Your task to perform on an android device: open sync settings in chrome Image 0: 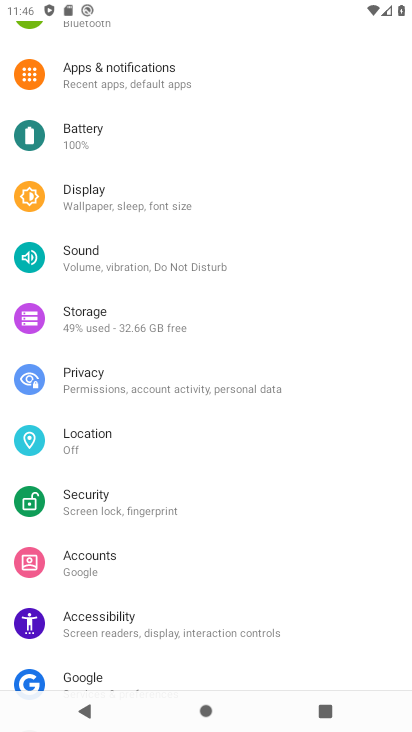
Step 0: press back button
Your task to perform on an android device: open sync settings in chrome Image 1: 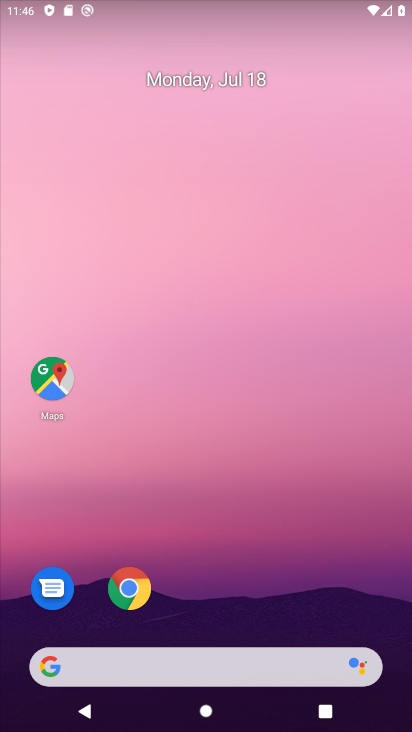
Step 1: drag from (223, 621) to (215, 141)
Your task to perform on an android device: open sync settings in chrome Image 2: 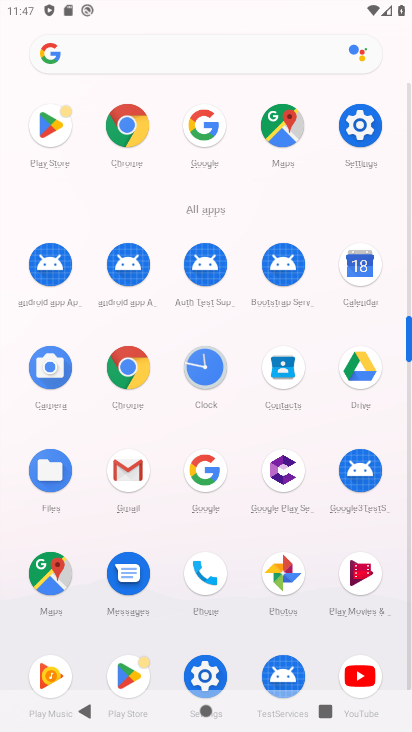
Step 2: click (357, 125)
Your task to perform on an android device: open sync settings in chrome Image 3: 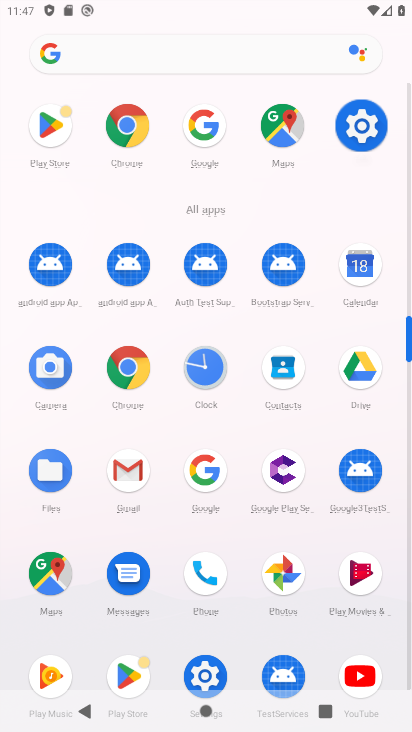
Step 3: click (358, 134)
Your task to perform on an android device: open sync settings in chrome Image 4: 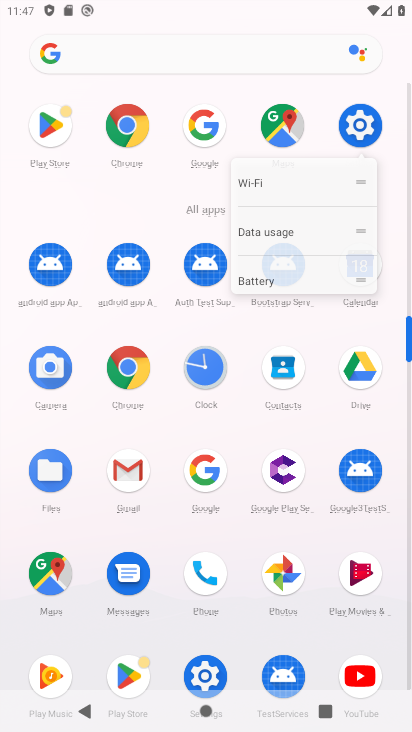
Step 4: click (358, 134)
Your task to perform on an android device: open sync settings in chrome Image 5: 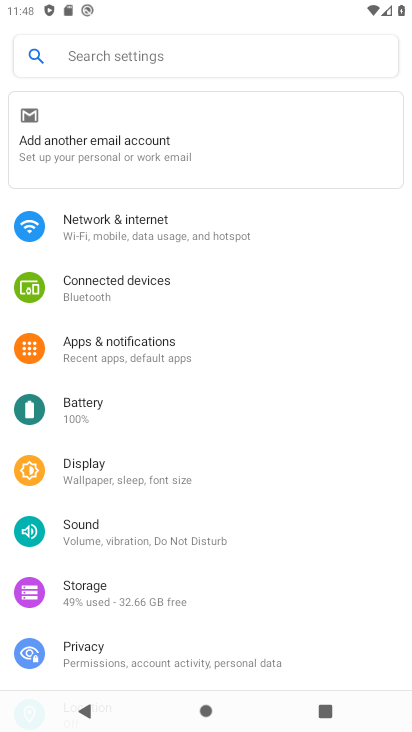
Step 5: press back button
Your task to perform on an android device: open sync settings in chrome Image 6: 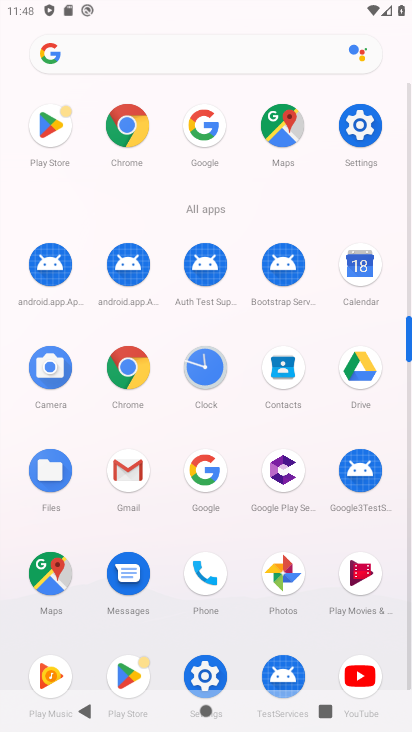
Step 6: press home button
Your task to perform on an android device: open sync settings in chrome Image 7: 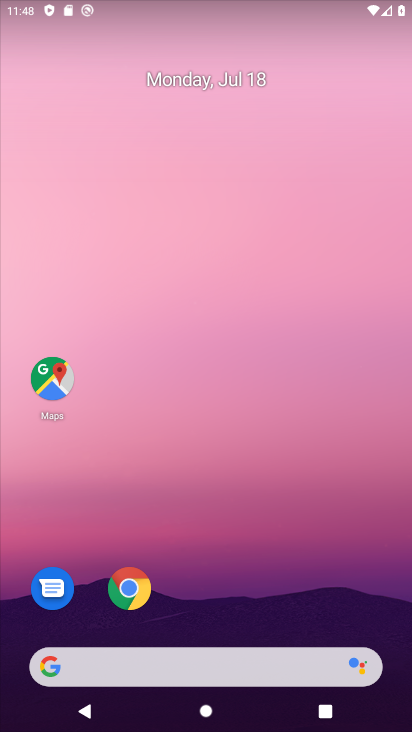
Step 7: drag from (275, 582) to (224, 4)
Your task to perform on an android device: open sync settings in chrome Image 8: 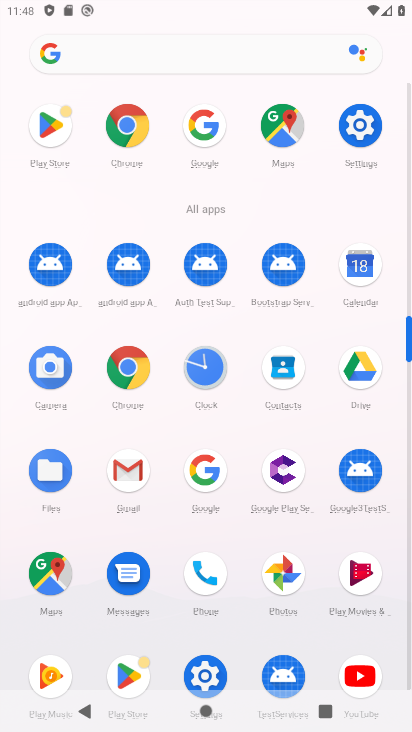
Step 8: click (125, 367)
Your task to perform on an android device: open sync settings in chrome Image 9: 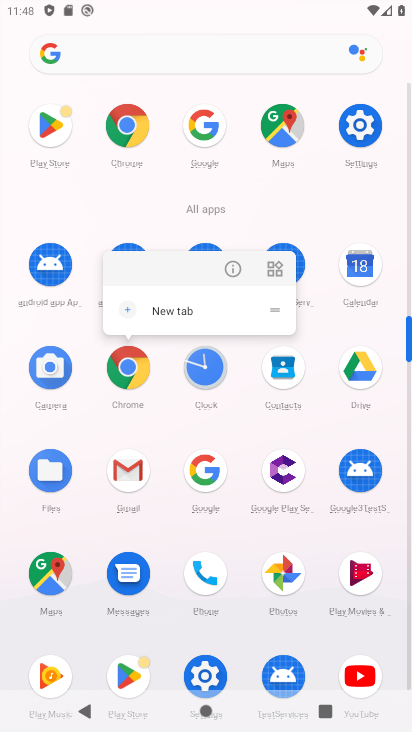
Step 9: click (126, 370)
Your task to perform on an android device: open sync settings in chrome Image 10: 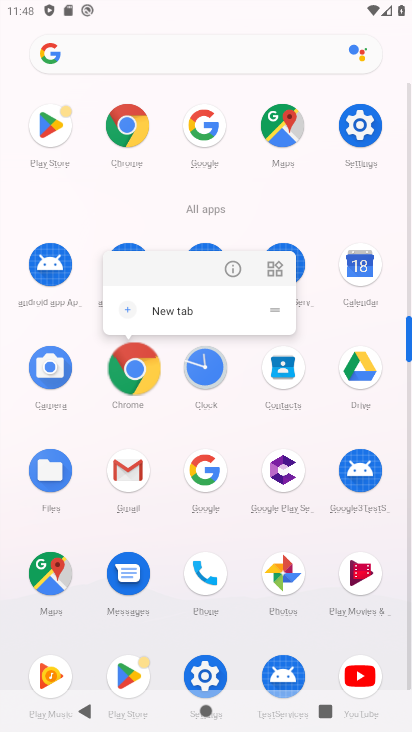
Step 10: click (133, 364)
Your task to perform on an android device: open sync settings in chrome Image 11: 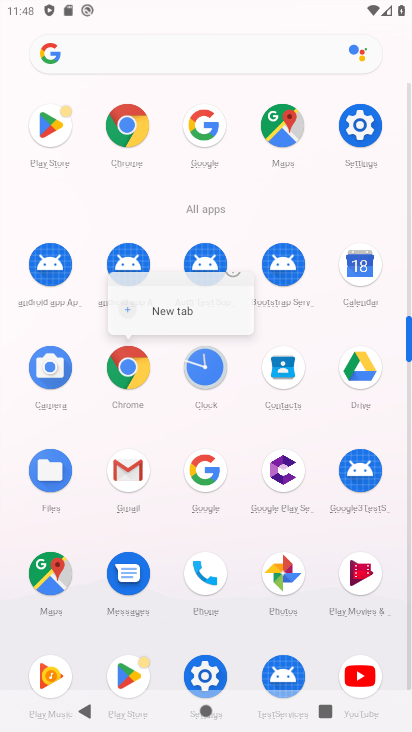
Step 11: click (135, 363)
Your task to perform on an android device: open sync settings in chrome Image 12: 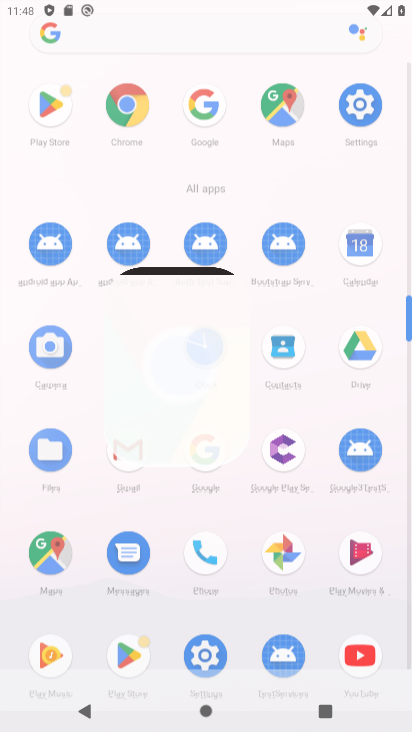
Step 12: click (138, 364)
Your task to perform on an android device: open sync settings in chrome Image 13: 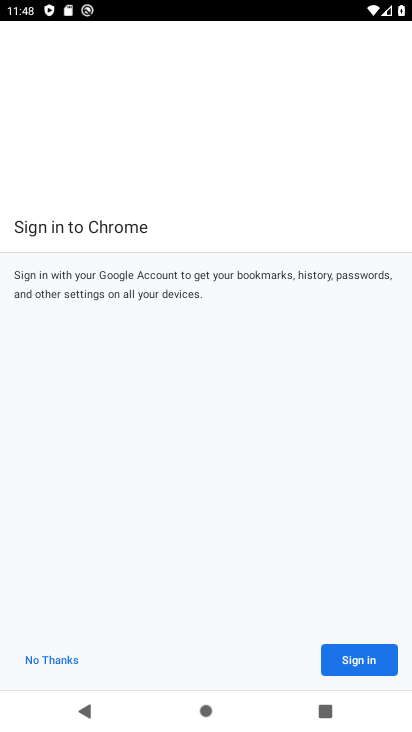
Step 13: click (140, 366)
Your task to perform on an android device: open sync settings in chrome Image 14: 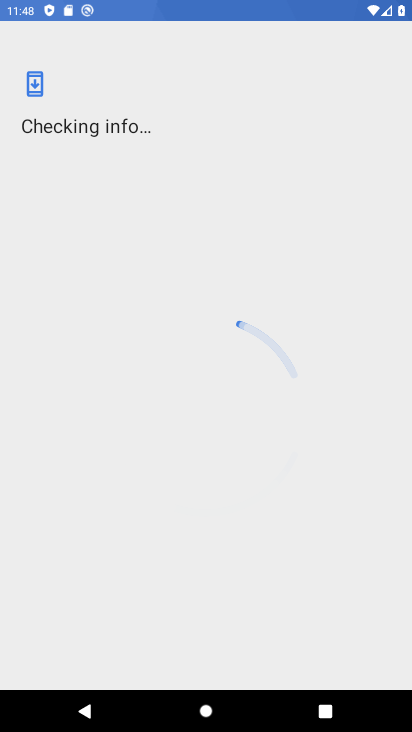
Step 14: task complete